Your task to perform on an android device: Search for the top rated book on goodreads. Image 0: 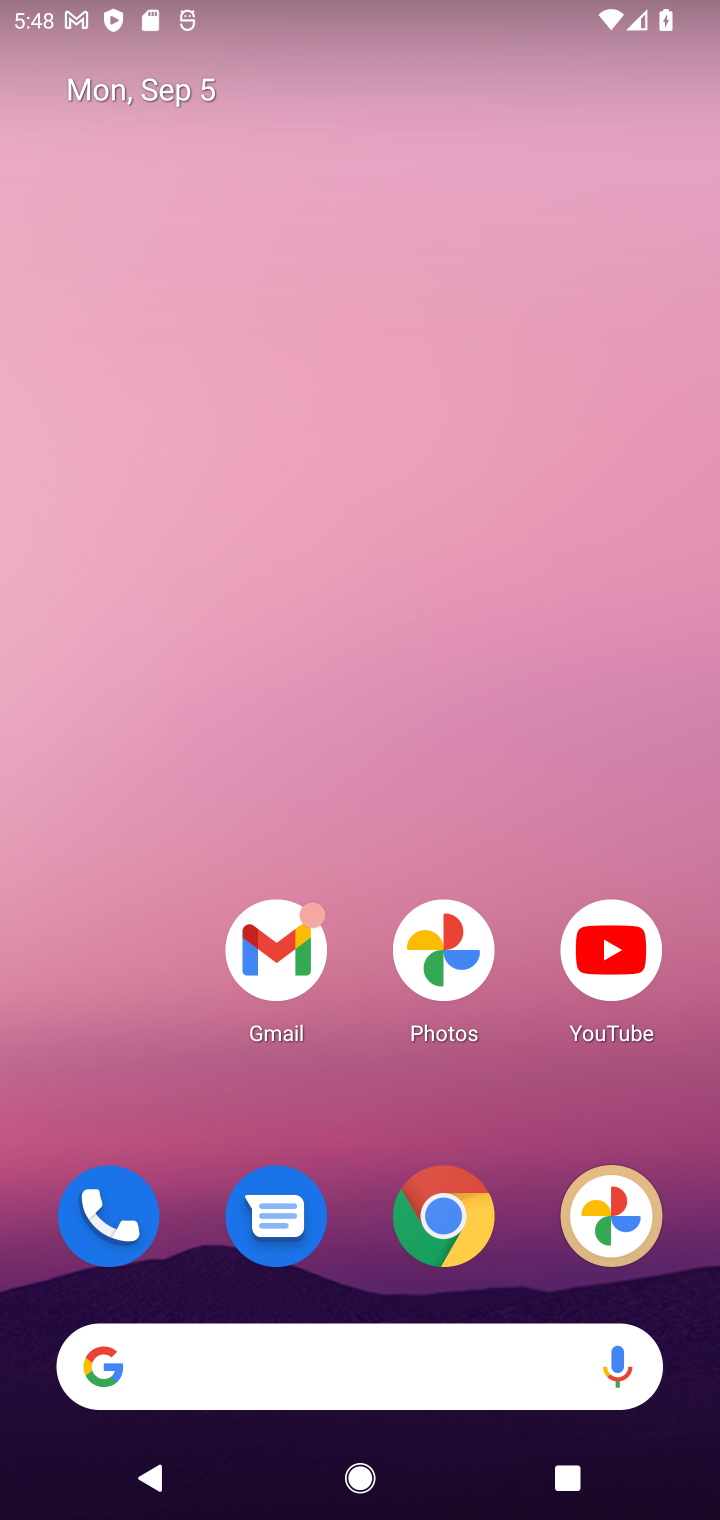
Step 0: click (478, 1203)
Your task to perform on an android device: Search for the top rated book on goodreads. Image 1: 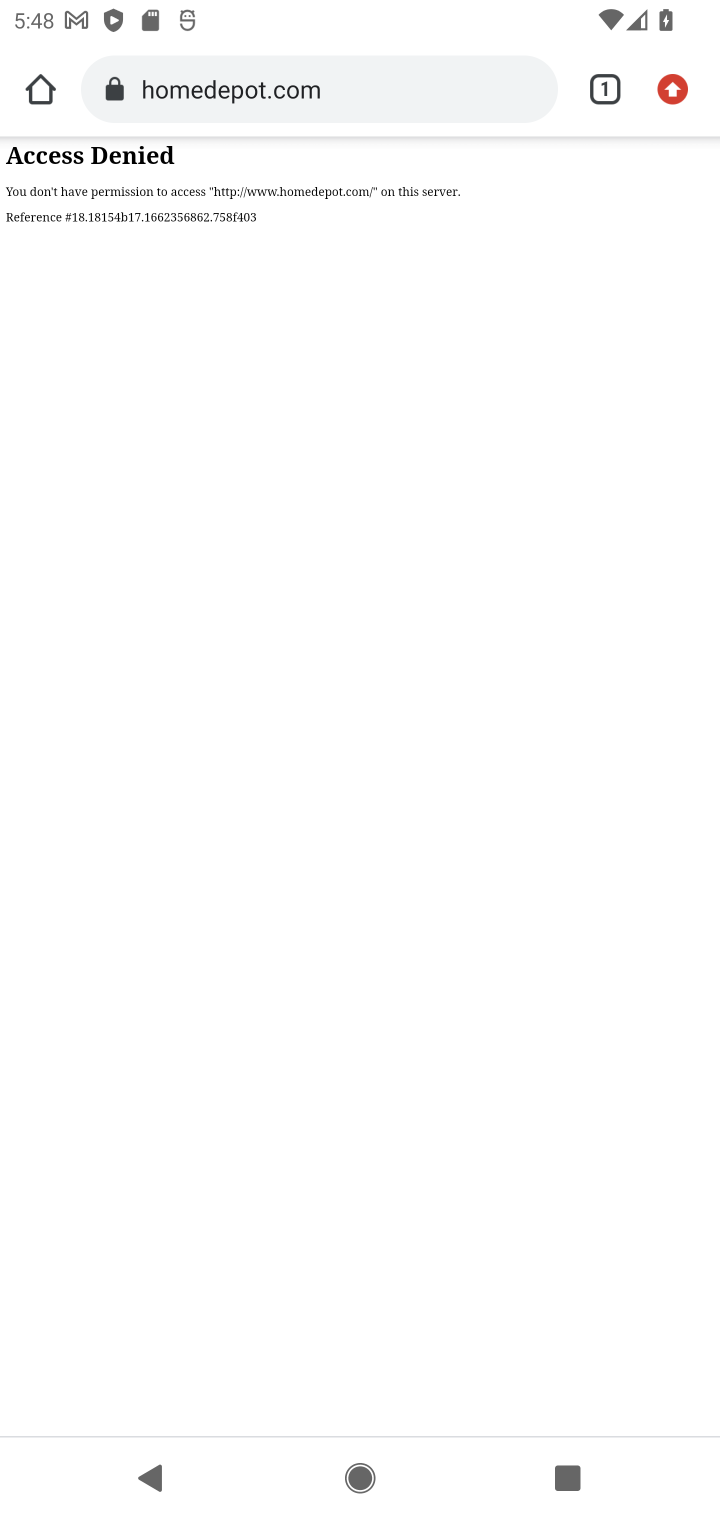
Step 1: click (441, 89)
Your task to perform on an android device: Search for the top rated book on goodreads. Image 2: 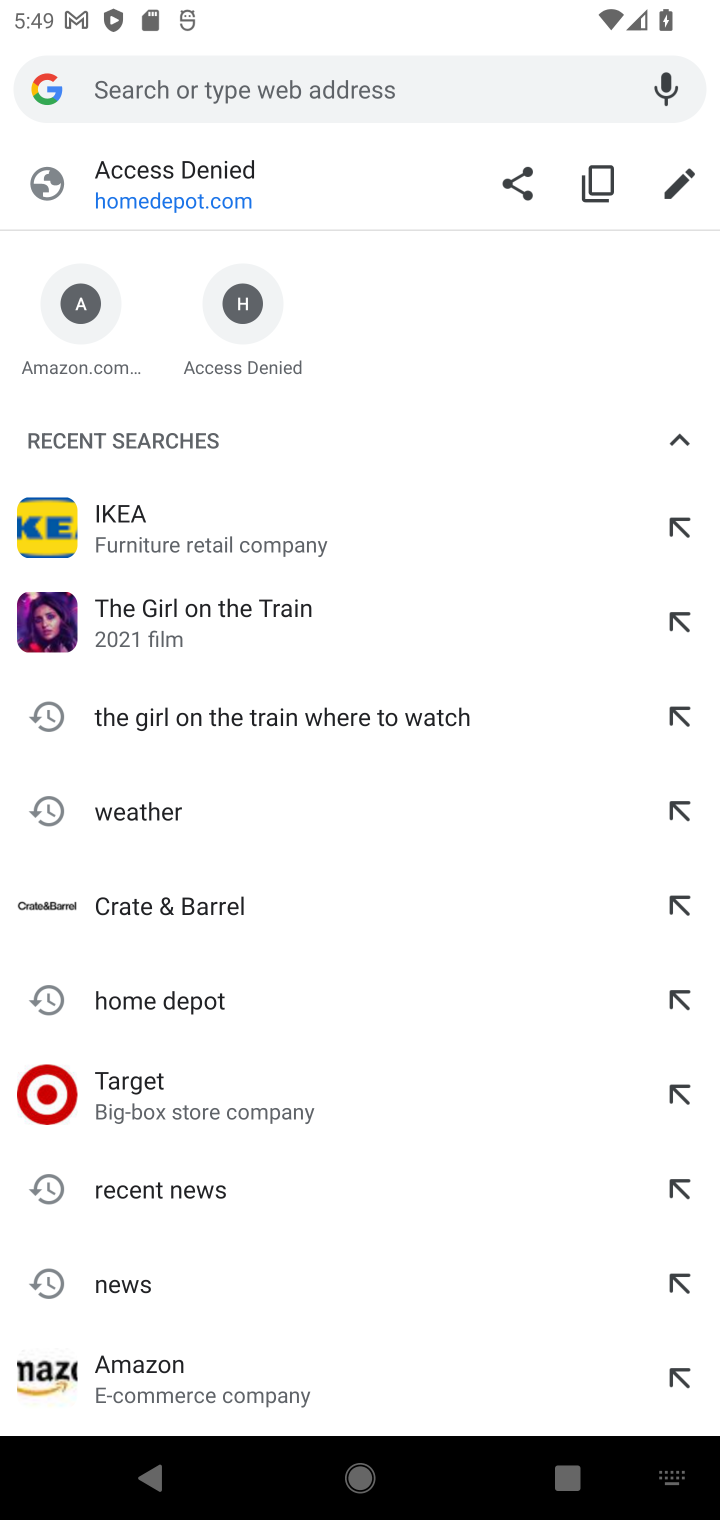
Step 2: type "goodreads"
Your task to perform on an android device: Search for the top rated book on goodreads. Image 3: 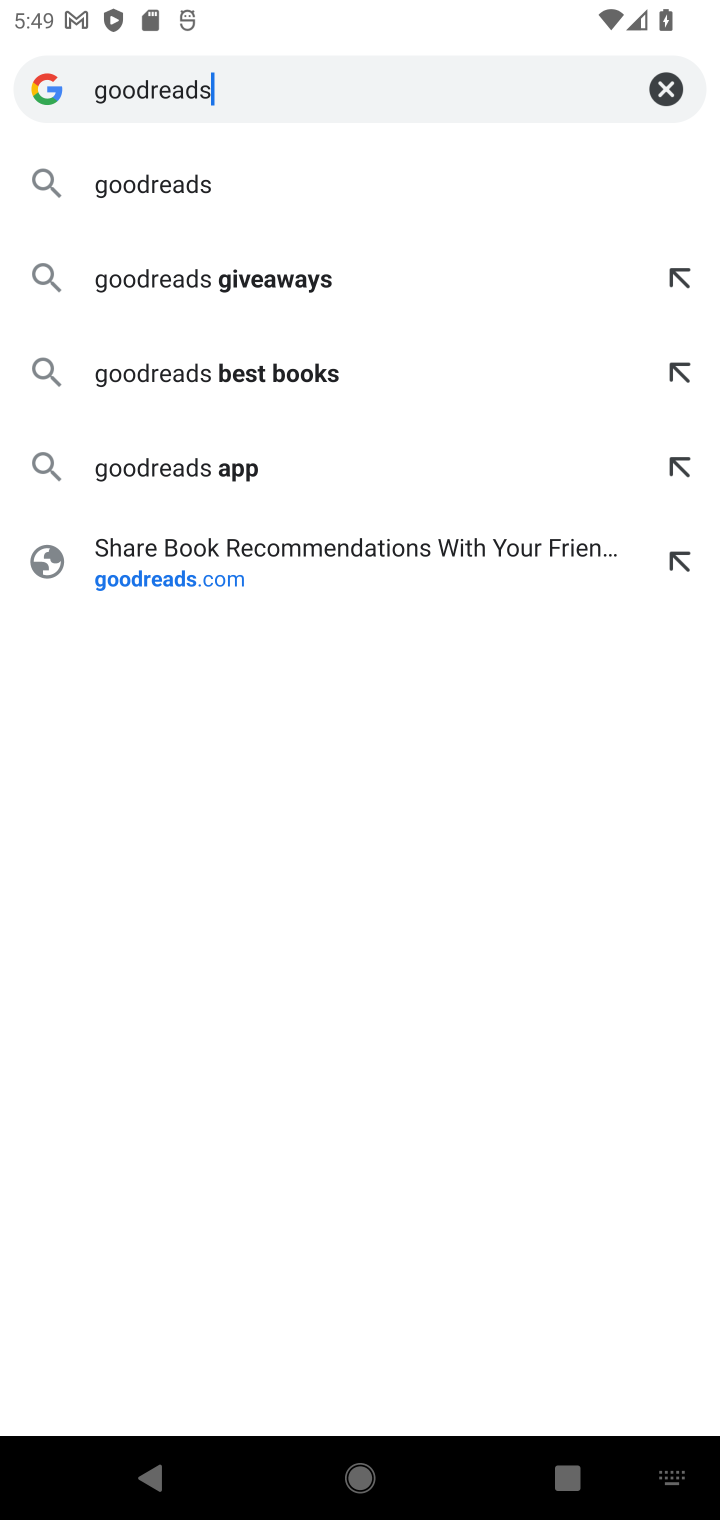
Step 3: click (405, 175)
Your task to perform on an android device: Search for the top rated book on goodreads. Image 4: 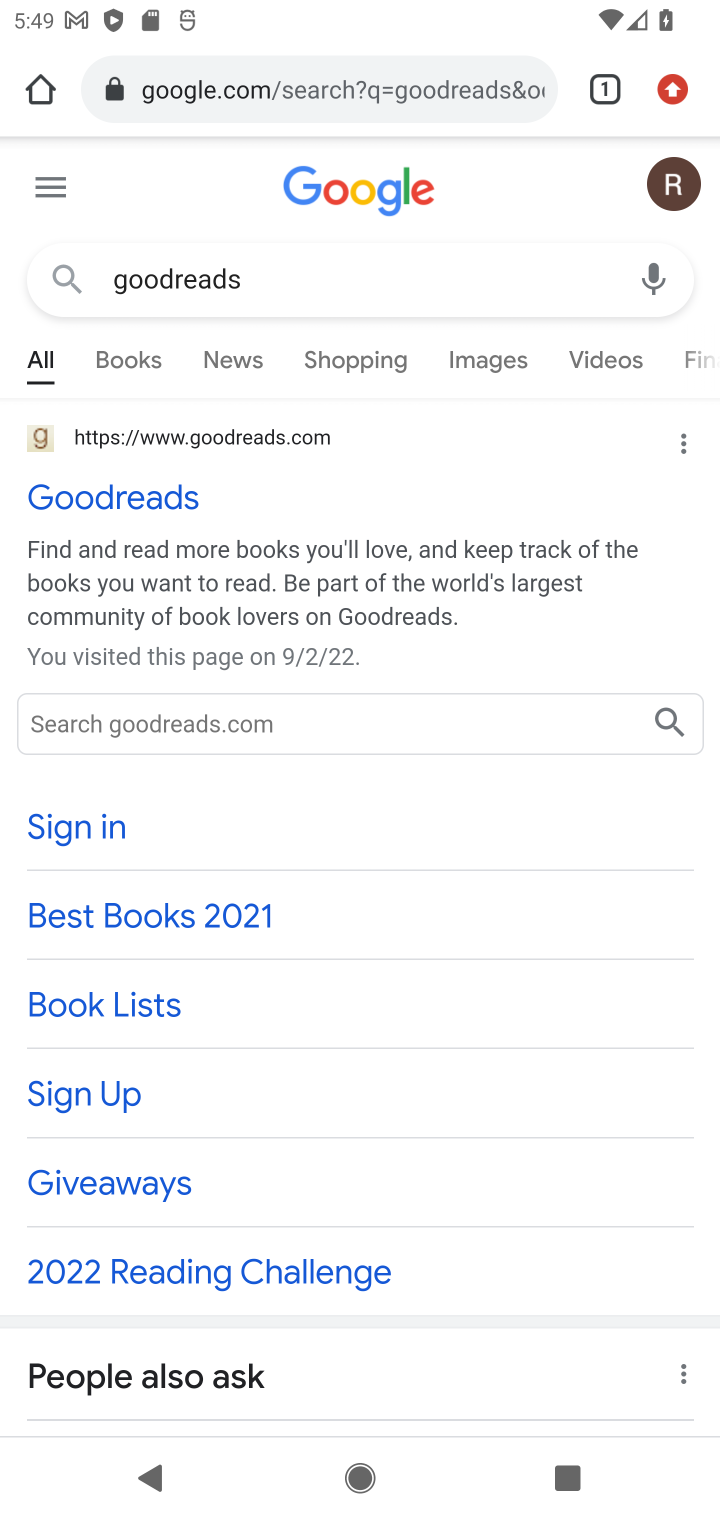
Step 4: click (156, 510)
Your task to perform on an android device: Search for the top rated book on goodreads. Image 5: 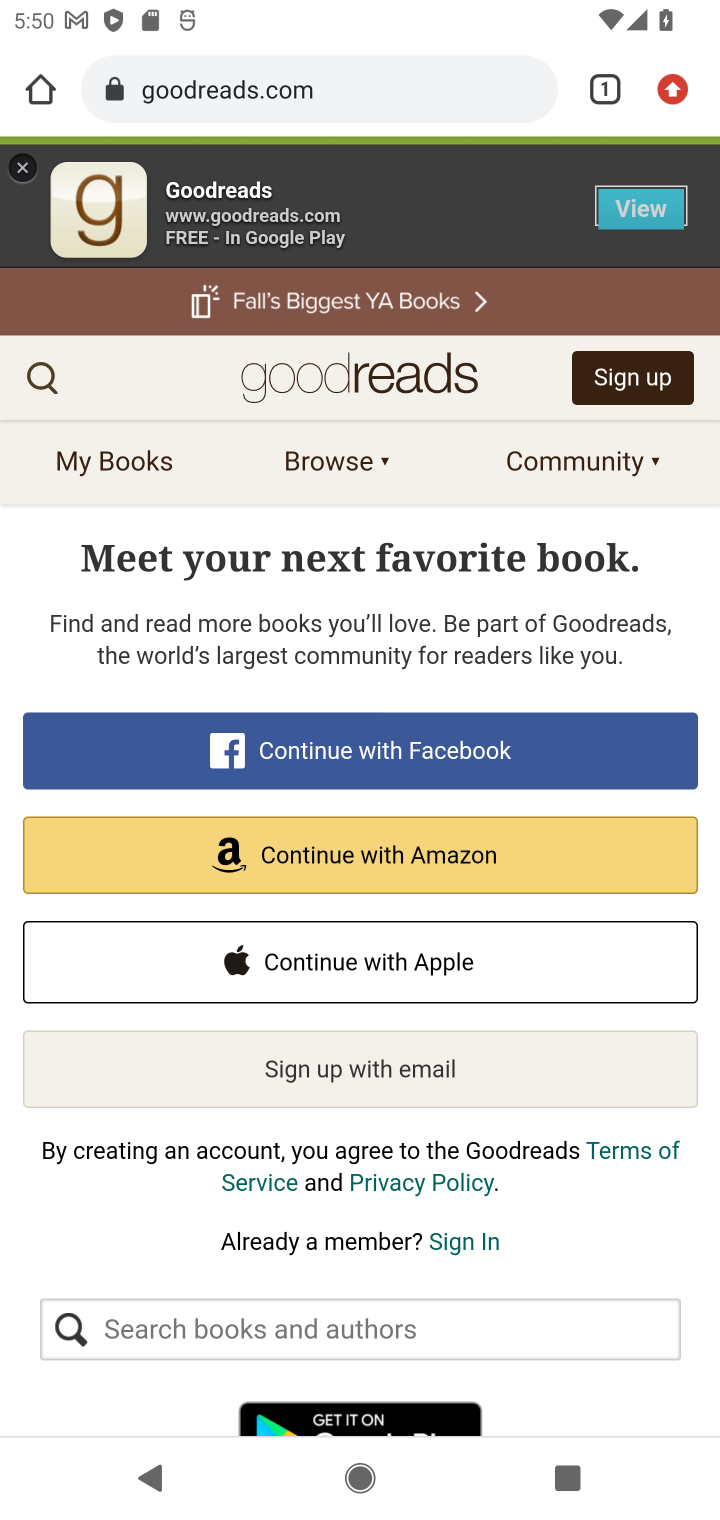
Step 5: click (46, 381)
Your task to perform on an android device: Search for the top rated book on goodreads. Image 6: 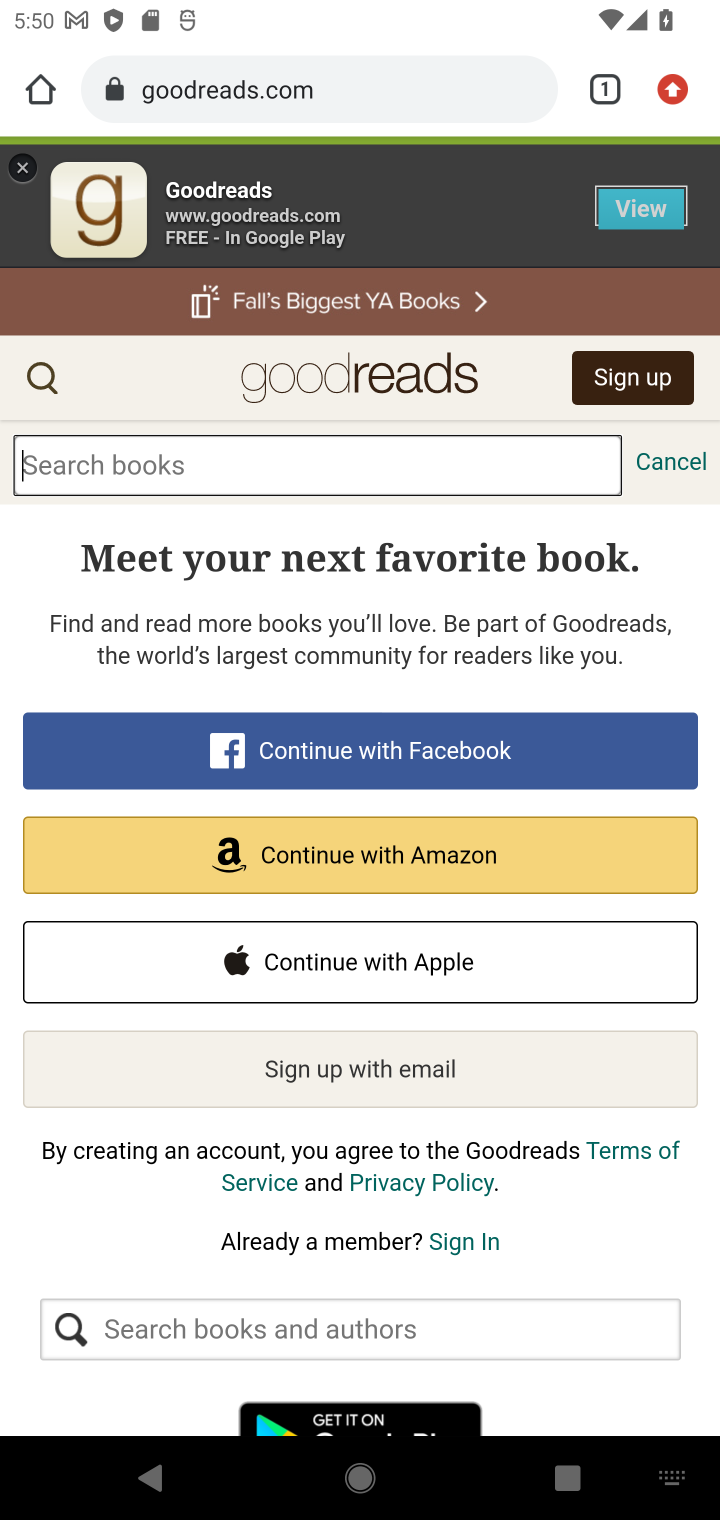
Step 6: click (320, 470)
Your task to perform on an android device: Search for the top rated book on goodreads. Image 7: 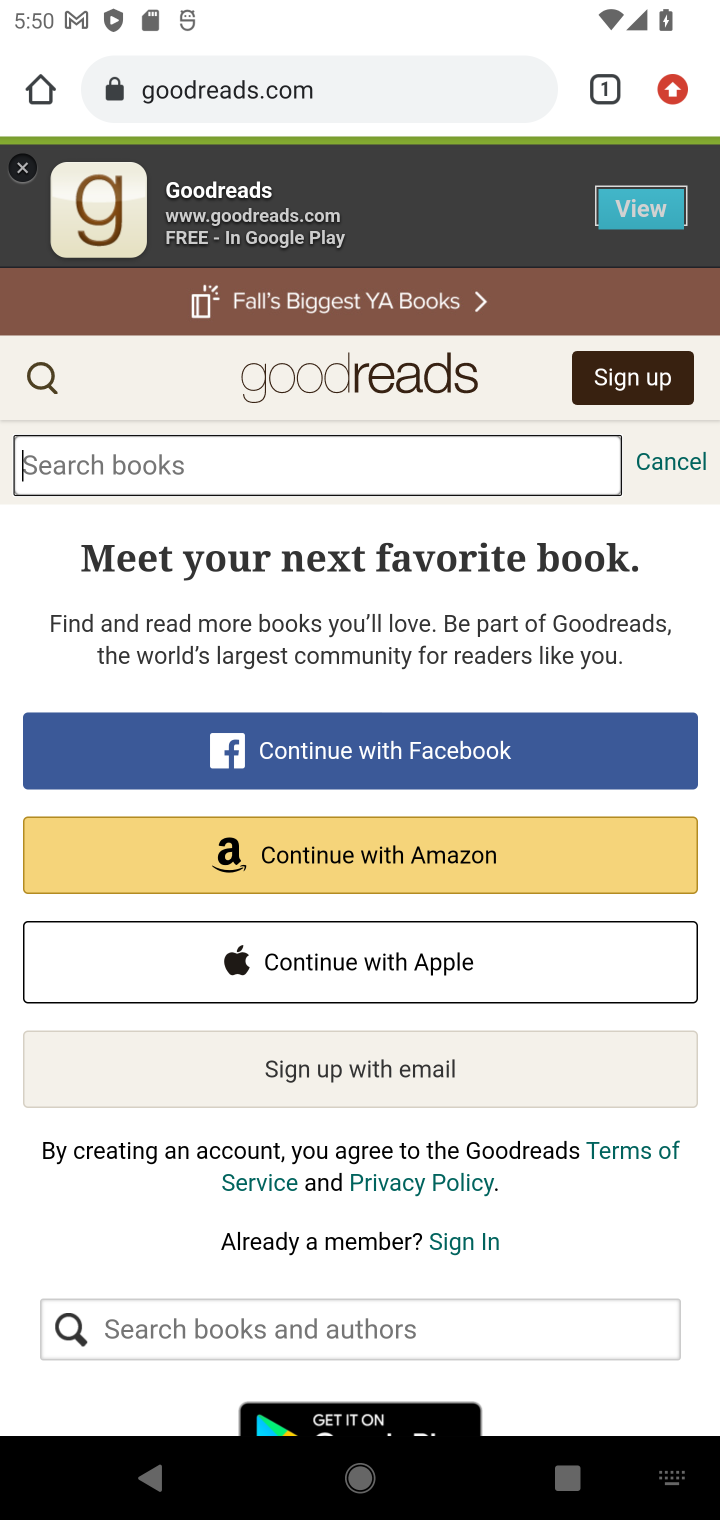
Step 7: type "top rated book"
Your task to perform on an android device: Search for the top rated book on goodreads. Image 8: 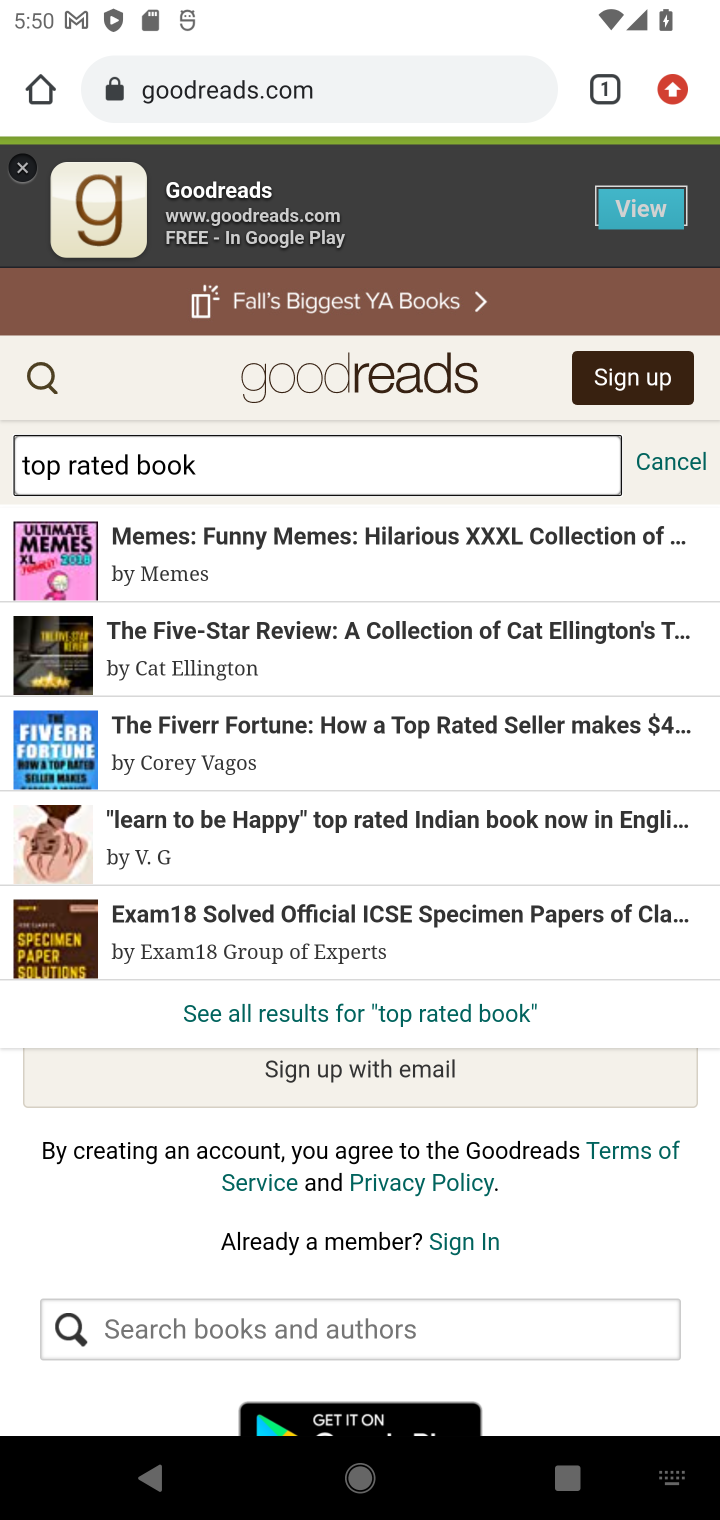
Step 8: press enter
Your task to perform on an android device: Search for the top rated book on goodreads. Image 9: 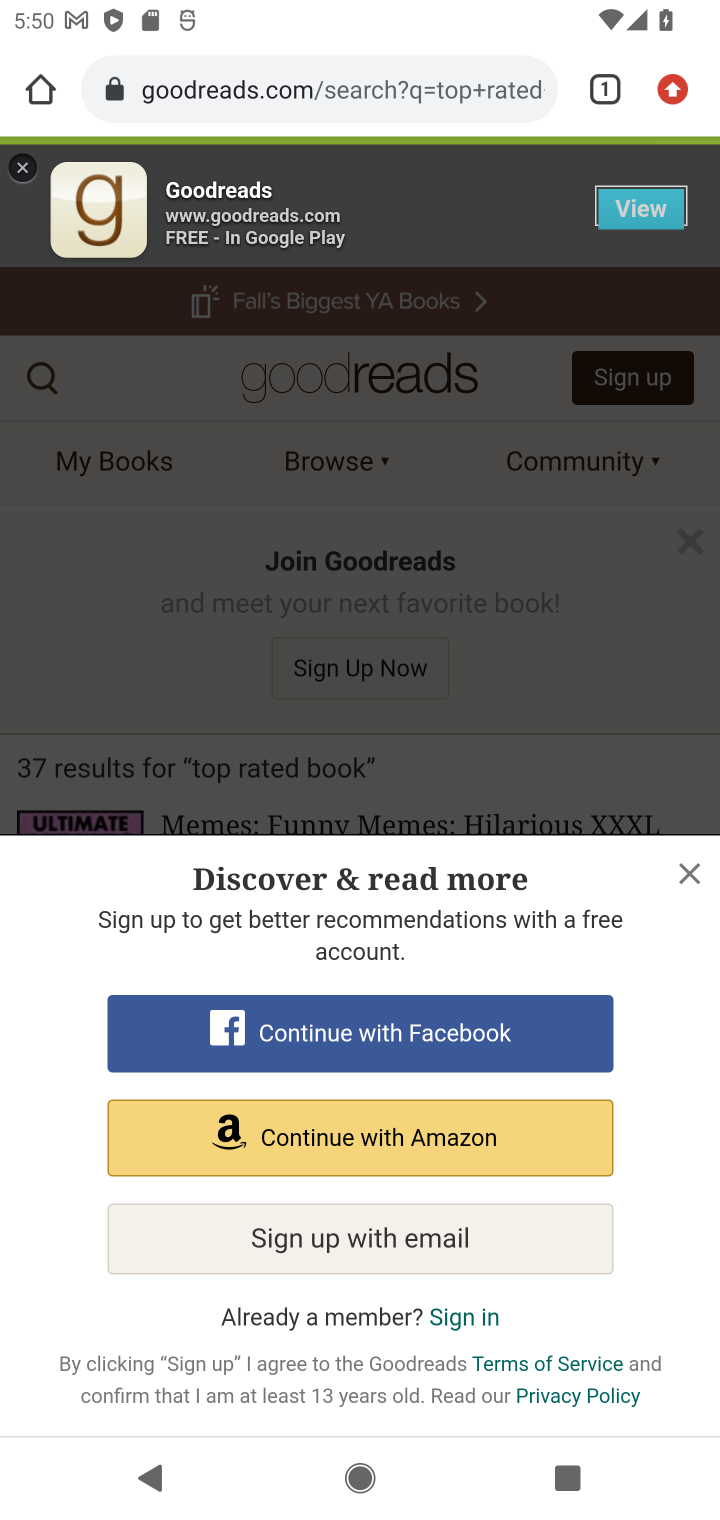
Step 9: click (692, 870)
Your task to perform on an android device: Search for the top rated book on goodreads. Image 10: 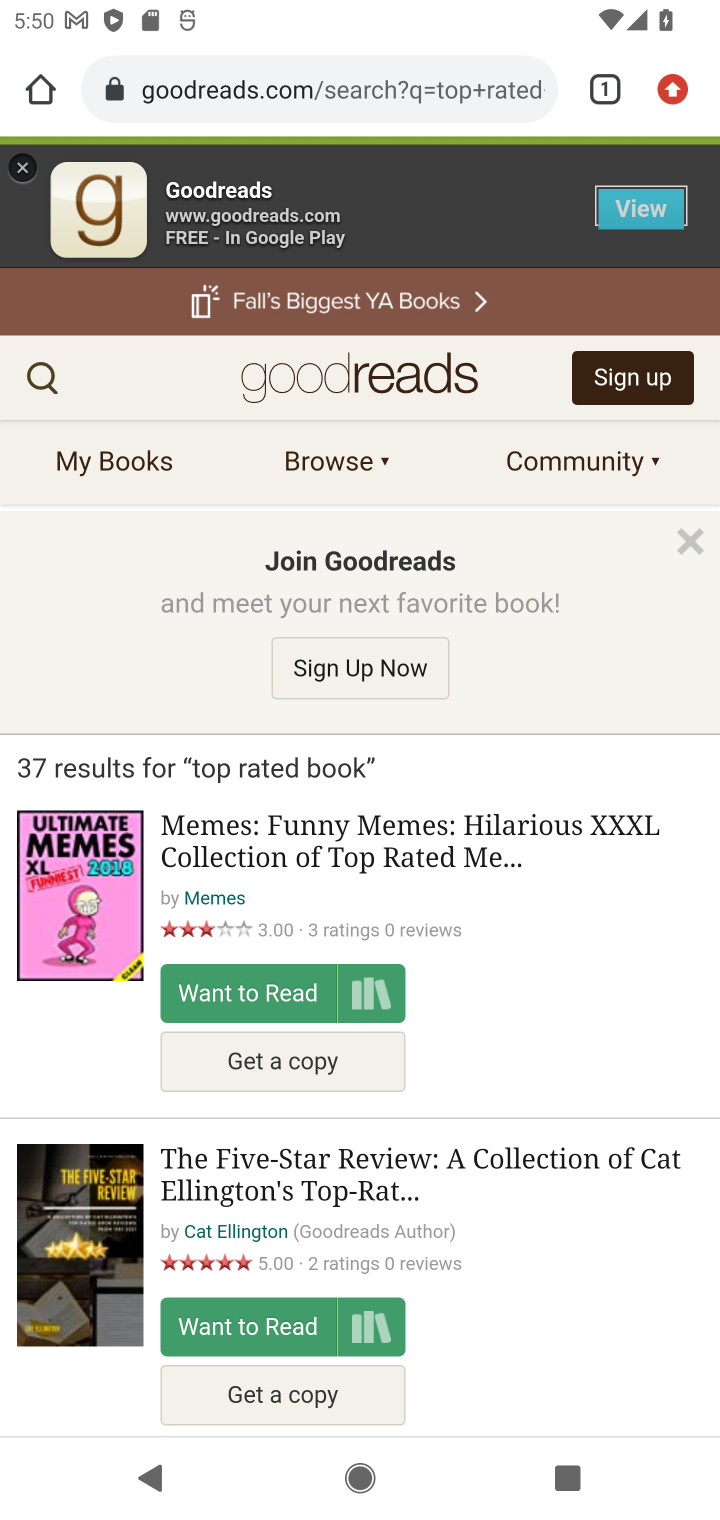
Step 10: task complete